Your task to perform on an android device: Go to Amazon Image 0: 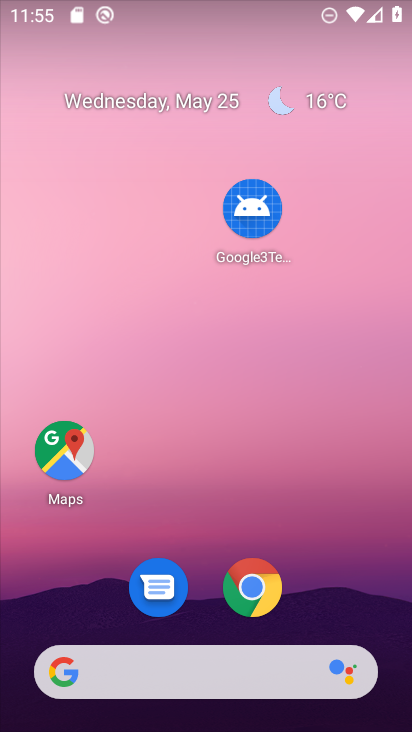
Step 0: click (246, 576)
Your task to perform on an android device: Go to Amazon Image 1: 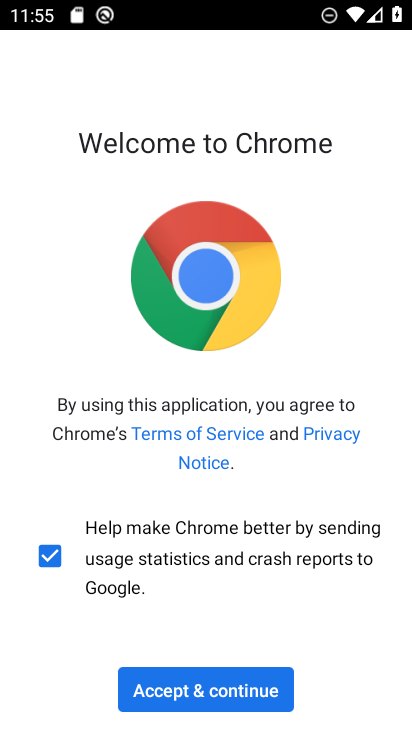
Step 1: click (226, 701)
Your task to perform on an android device: Go to Amazon Image 2: 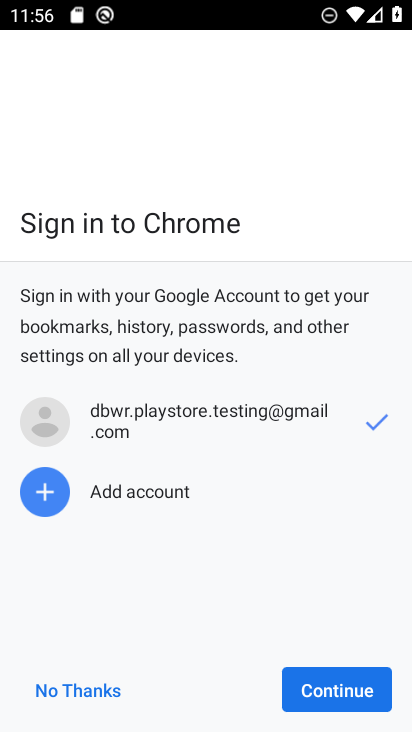
Step 2: click (403, 540)
Your task to perform on an android device: Go to Amazon Image 3: 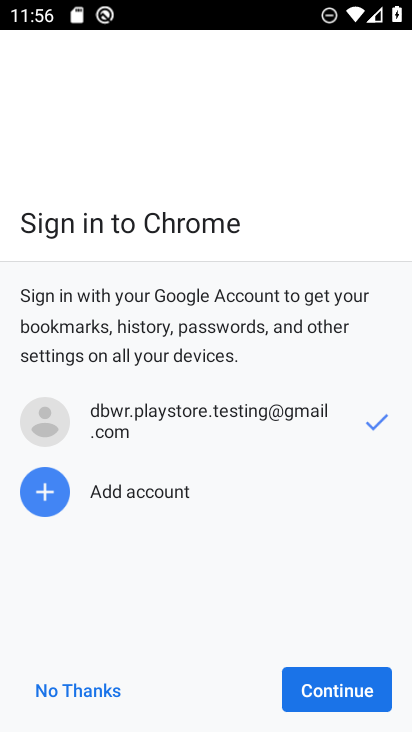
Step 3: press home button
Your task to perform on an android device: Go to Amazon Image 4: 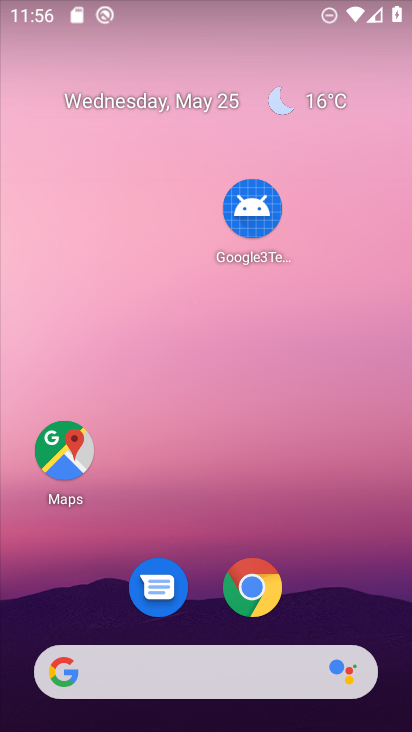
Step 4: click (252, 591)
Your task to perform on an android device: Go to Amazon Image 5: 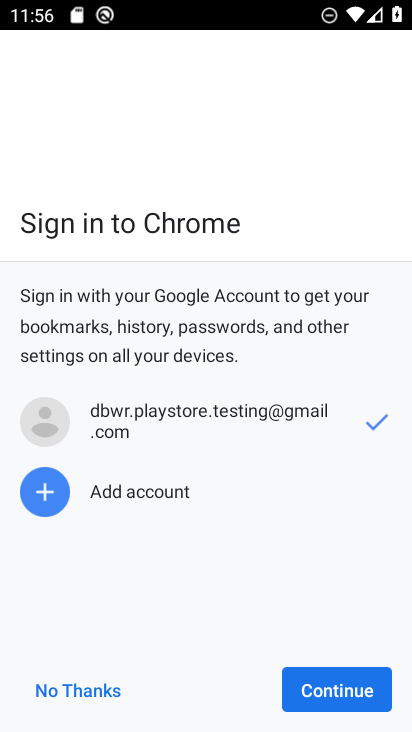
Step 5: click (324, 689)
Your task to perform on an android device: Go to Amazon Image 6: 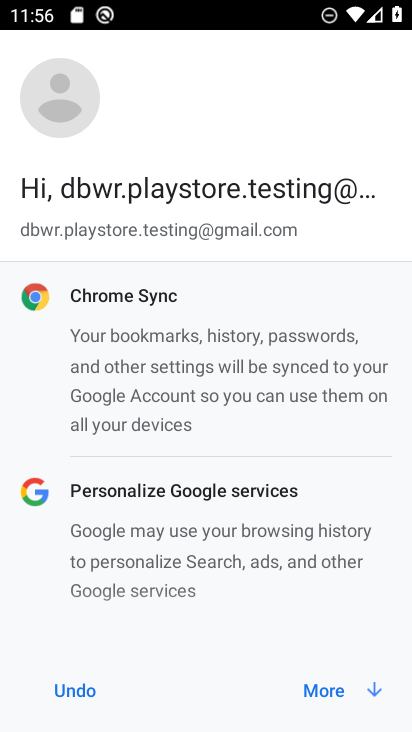
Step 6: click (334, 710)
Your task to perform on an android device: Go to Amazon Image 7: 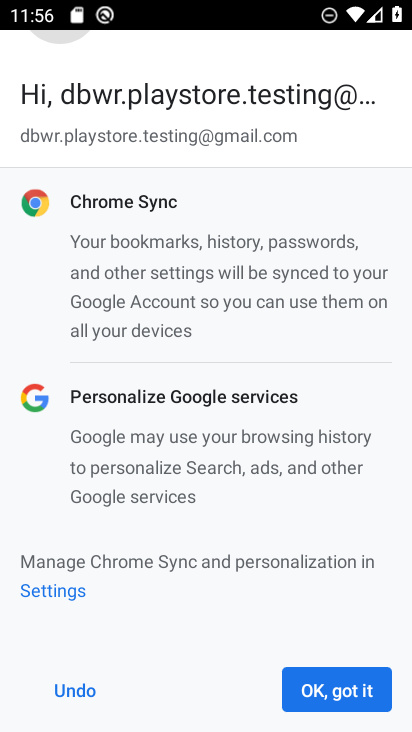
Step 7: click (330, 710)
Your task to perform on an android device: Go to Amazon Image 8: 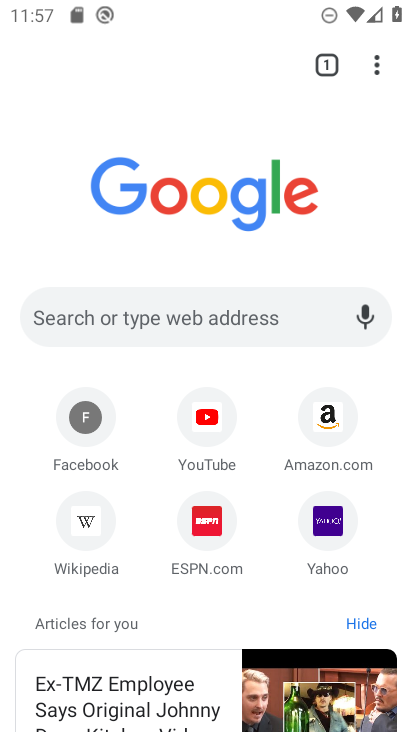
Step 8: click (294, 414)
Your task to perform on an android device: Go to Amazon Image 9: 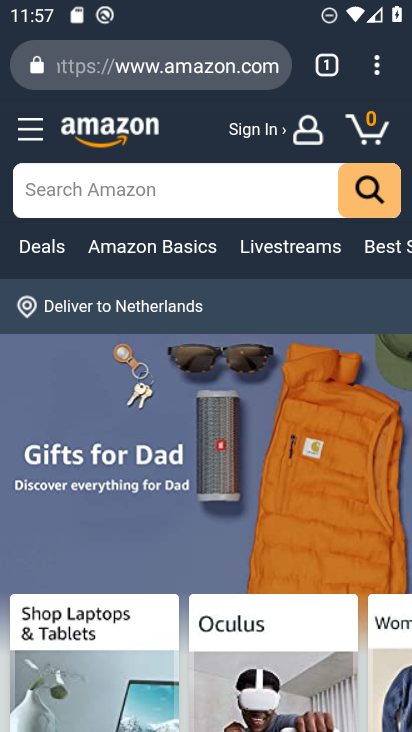
Step 9: task complete